Your task to perform on an android device: Open Wikipedia Image 0: 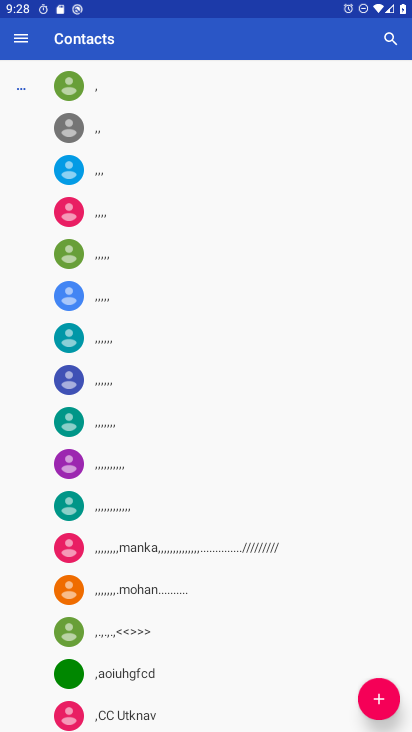
Step 0: press home button
Your task to perform on an android device: Open Wikipedia Image 1: 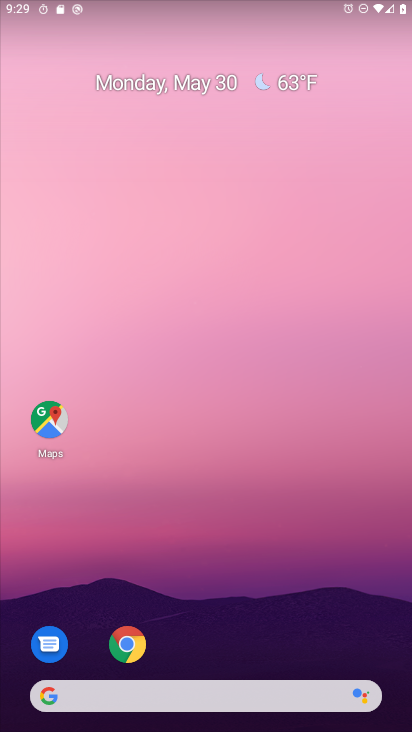
Step 1: click (122, 637)
Your task to perform on an android device: Open Wikipedia Image 2: 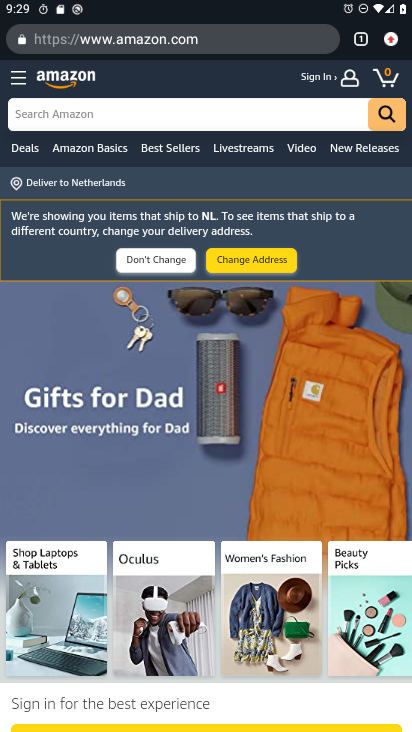
Step 2: task complete